Your task to perform on an android device: turn notification dots off Image 0: 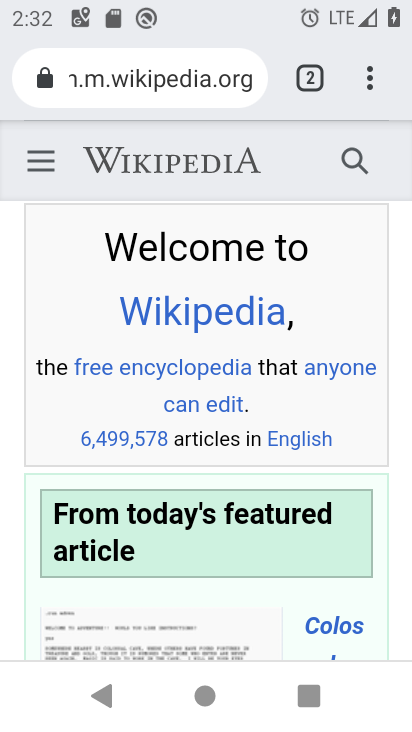
Step 0: press home button
Your task to perform on an android device: turn notification dots off Image 1: 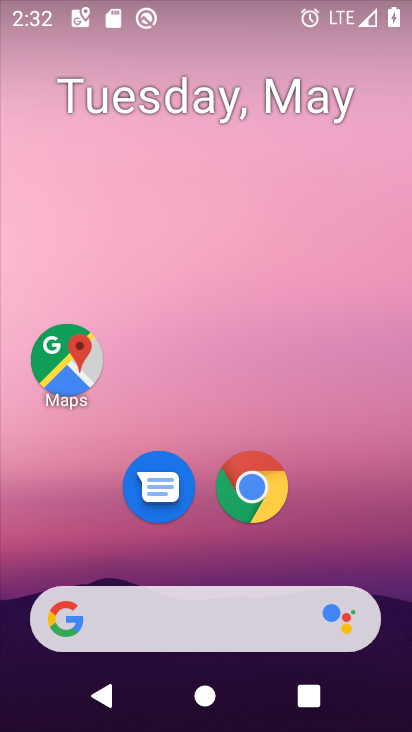
Step 1: drag from (78, 578) to (390, 128)
Your task to perform on an android device: turn notification dots off Image 2: 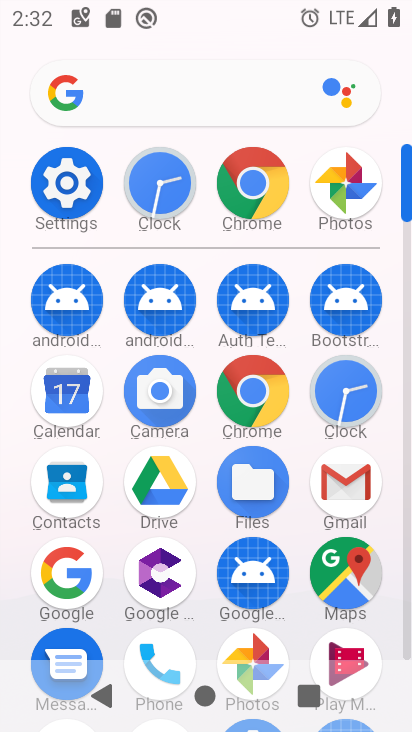
Step 2: click (67, 199)
Your task to perform on an android device: turn notification dots off Image 3: 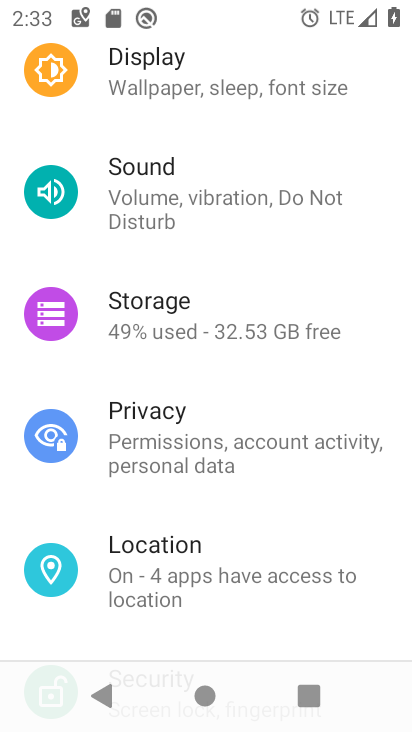
Step 3: drag from (163, 20) to (175, 545)
Your task to perform on an android device: turn notification dots off Image 4: 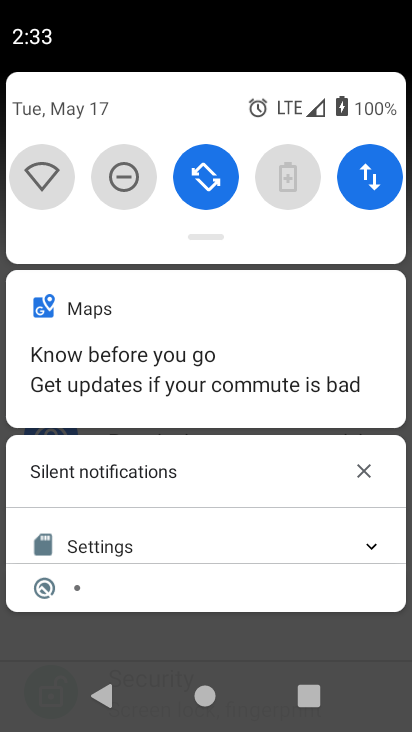
Step 4: drag from (12, 690) to (211, 272)
Your task to perform on an android device: turn notification dots off Image 5: 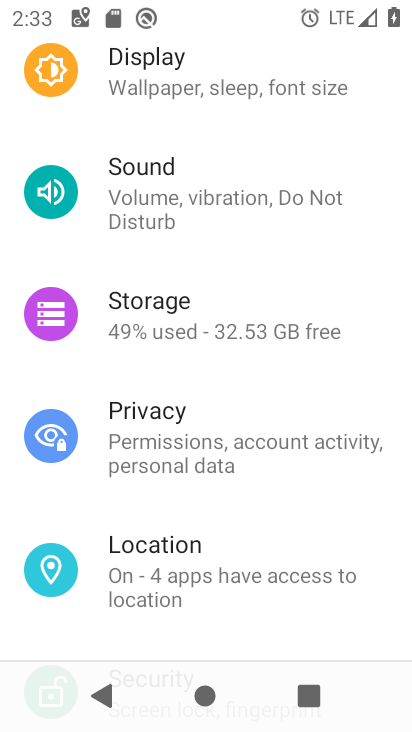
Step 5: drag from (290, 171) to (305, 425)
Your task to perform on an android device: turn notification dots off Image 6: 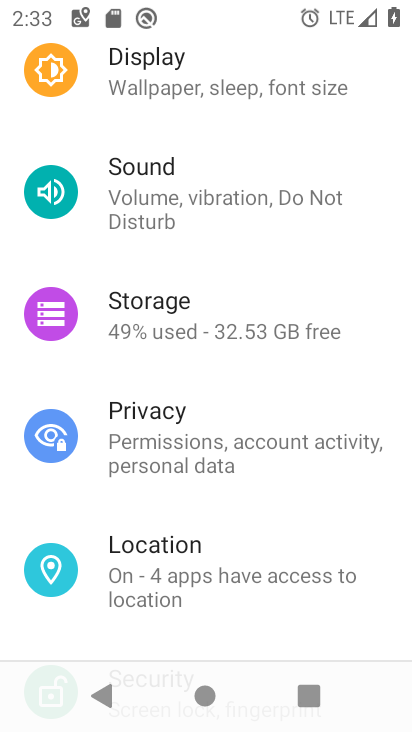
Step 6: drag from (238, 215) to (231, 516)
Your task to perform on an android device: turn notification dots off Image 7: 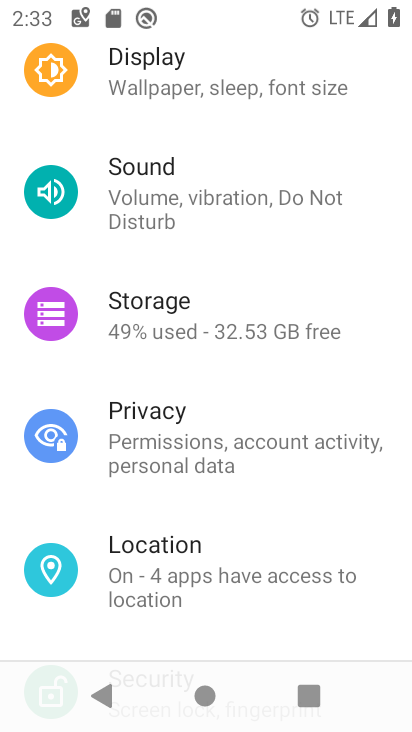
Step 7: drag from (190, 118) to (201, 494)
Your task to perform on an android device: turn notification dots off Image 8: 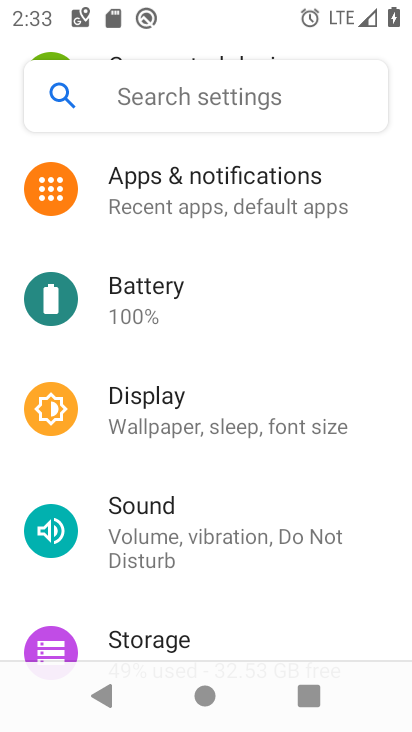
Step 8: click (164, 194)
Your task to perform on an android device: turn notification dots off Image 9: 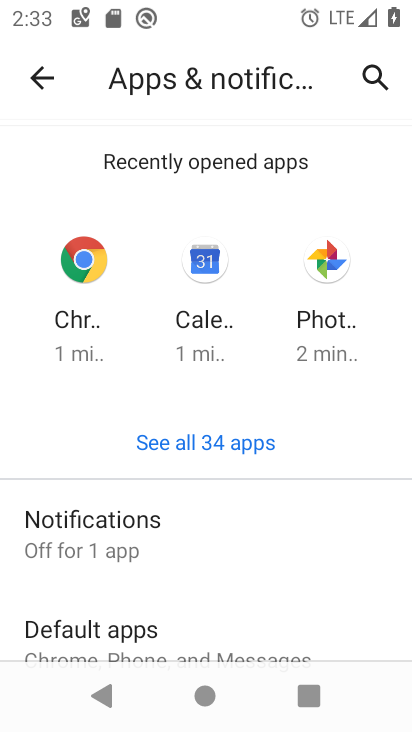
Step 9: click (64, 533)
Your task to perform on an android device: turn notification dots off Image 10: 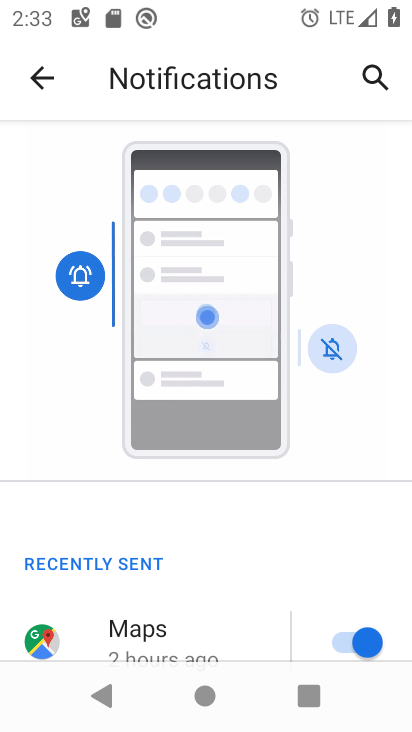
Step 10: drag from (11, 502) to (228, 146)
Your task to perform on an android device: turn notification dots off Image 11: 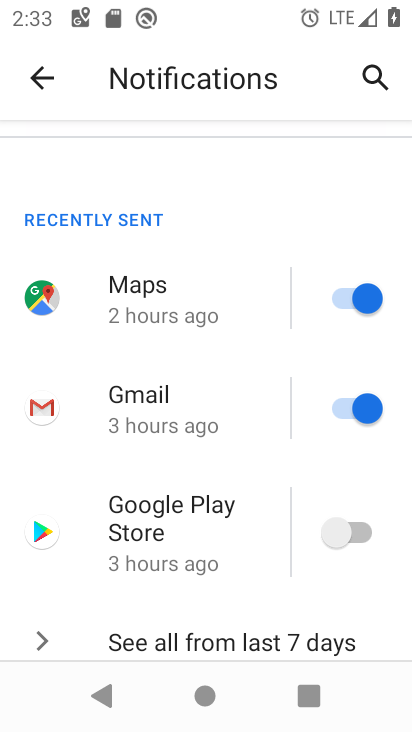
Step 11: drag from (60, 607) to (305, 235)
Your task to perform on an android device: turn notification dots off Image 12: 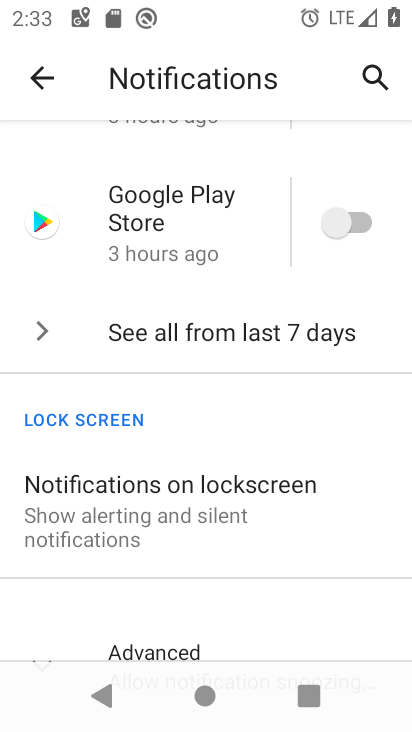
Step 12: drag from (80, 620) to (377, 292)
Your task to perform on an android device: turn notification dots off Image 13: 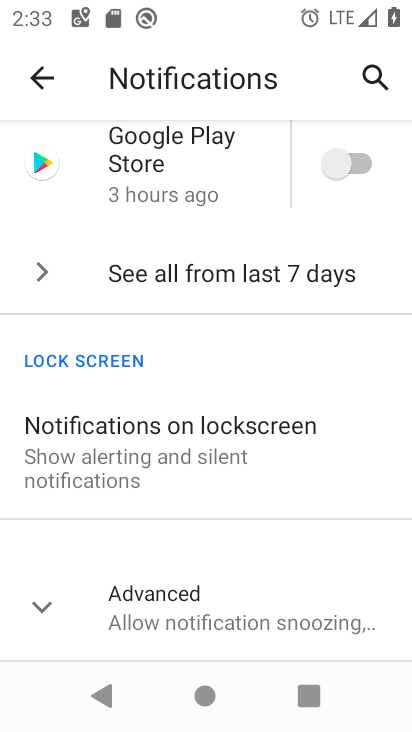
Step 13: click (164, 638)
Your task to perform on an android device: turn notification dots off Image 14: 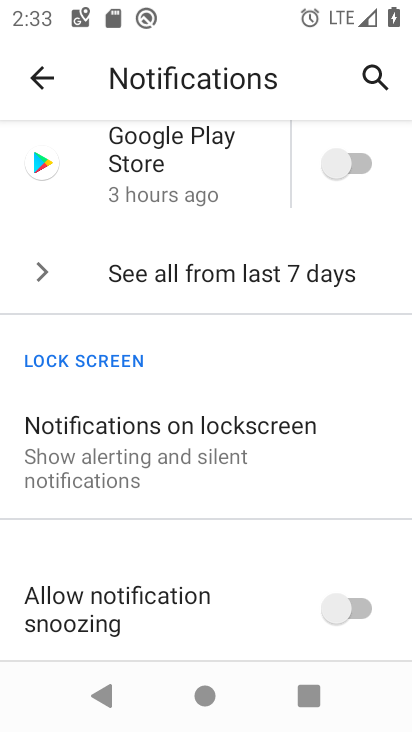
Step 14: task complete